Your task to perform on an android device: see creations saved in the google photos Image 0: 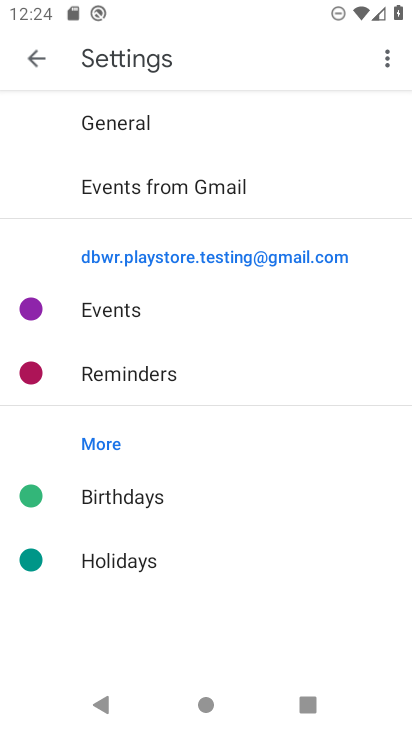
Step 0: press home button
Your task to perform on an android device: see creations saved in the google photos Image 1: 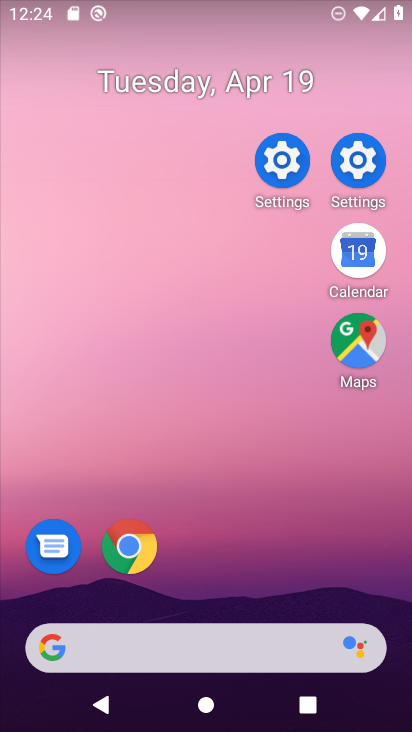
Step 1: drag from (270, 634) to (324, 242)
Your task to perform on an android device: see creations saved in the google photos Image 2: 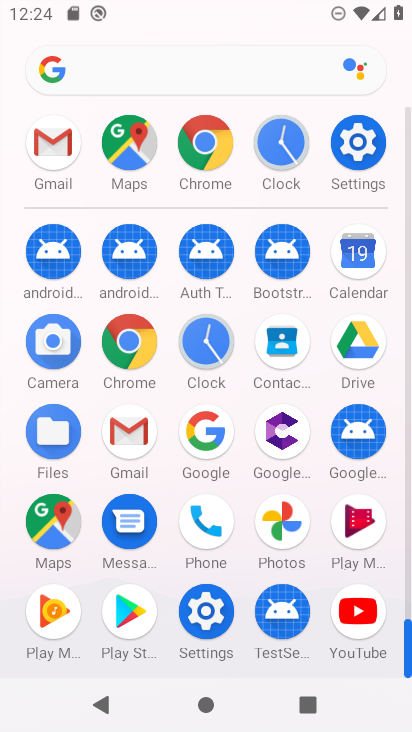
Step 2: click (264, 518)
Your task to perform on an android device: see creations saved in the google photos Image 3: 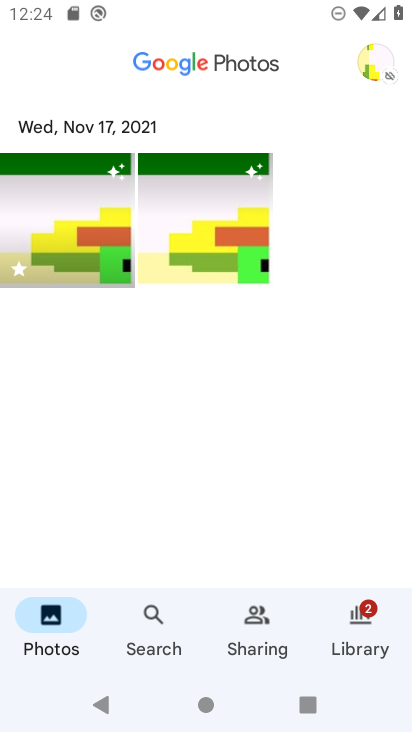
Step 3: task complete